Your task to perform on an android device: turn on airplane mode Image 0: 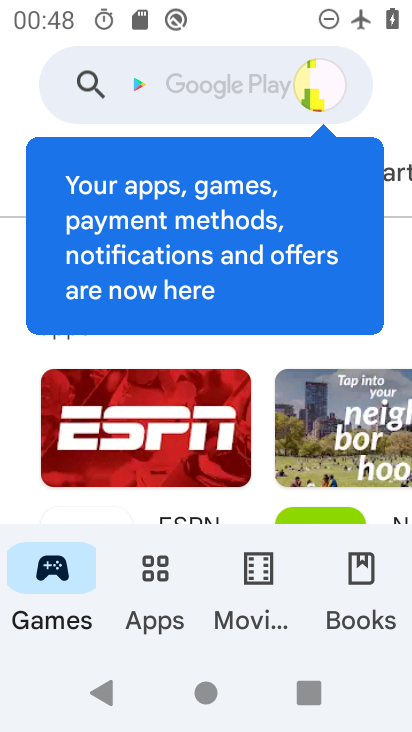
Step 0: press home button
Your task to perform on an android device: turn on airplane mode Image 1: 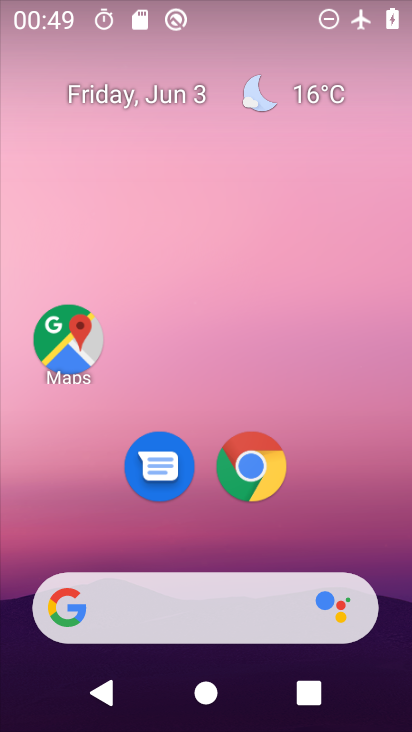
Step 1: drag from (193, 561) to (208, 216)
Your task to perform on an android device: turn on airplane mode Image 2: 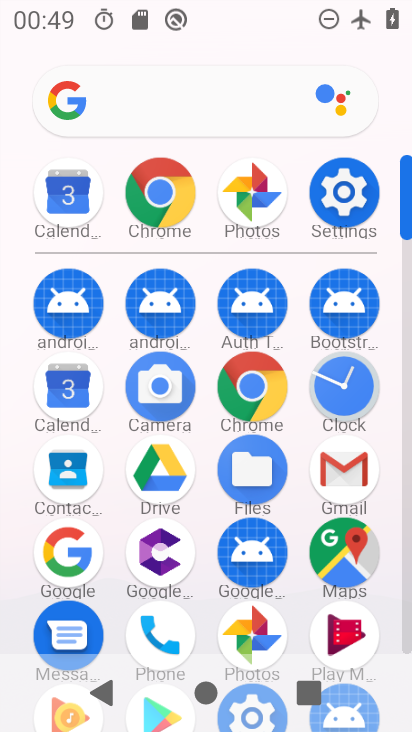
Step 2: click (336, 175)
Your task to perform on an android device: turn on airplane mode Image 3: 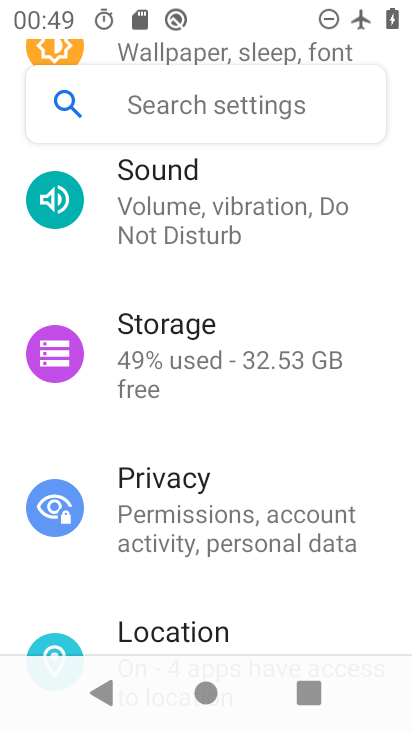
Step 3: drag from (204, 209) to (223, 545)
Your task to perform on an android device: turn on airplane mode Image 4: 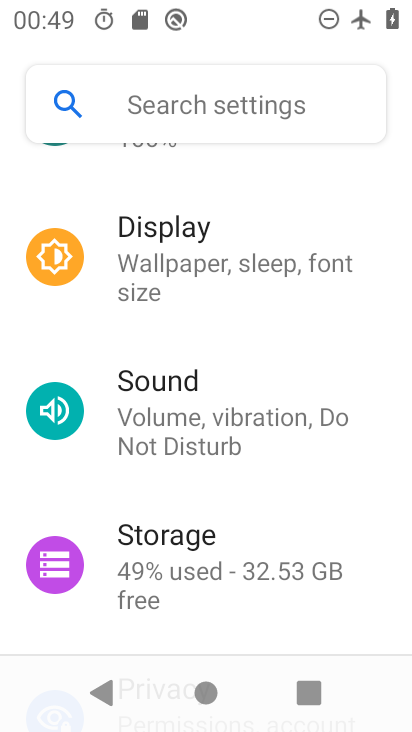
Step 4: drag from (220, 573) to (205, 238)
Your task to perform on an android device: turn on airplane mode Image 5: 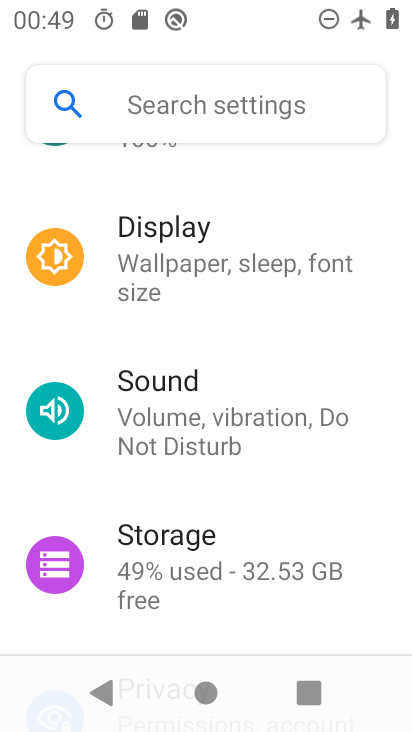
Step 5: drag from (219, 235) to (239, 582)
Your task to perform on an android device: turn on airplane mode Image 6: 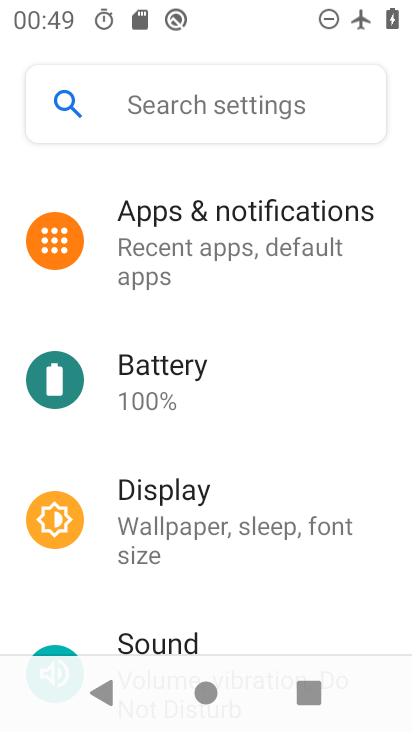
Step 6: drag from (200, 258) to (198, 487)
Your task to perform on an android device: turn on airplane mode Image 7: 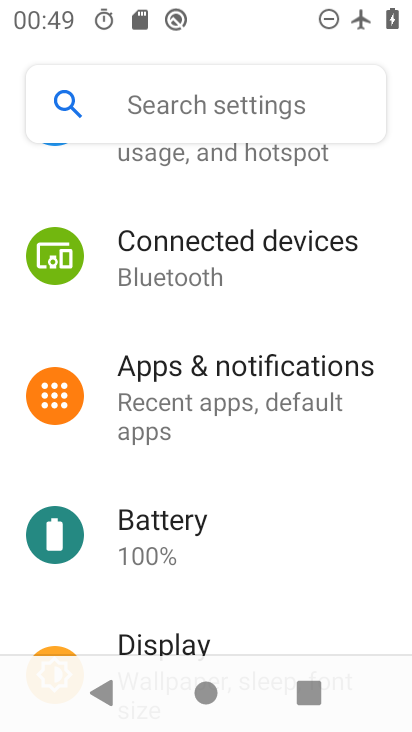
Step 7: drag from (219, 256) to (222, 590)
Your task to perform on an android device: turn on airplane mode Image 8: 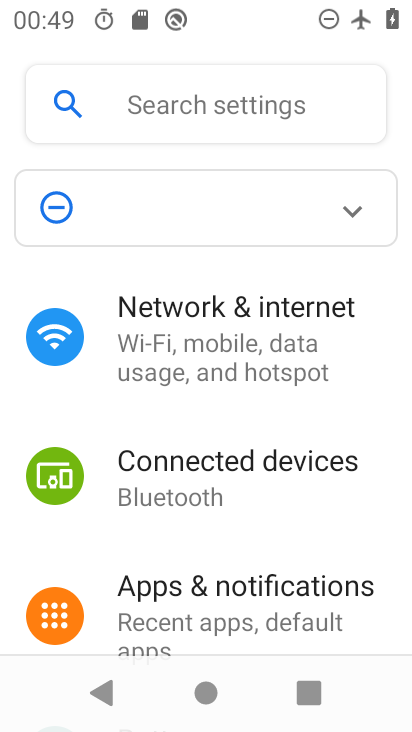
Step 8: click (198, 358)
Your task to perform on an android device: turn on airplane mode Image 9: 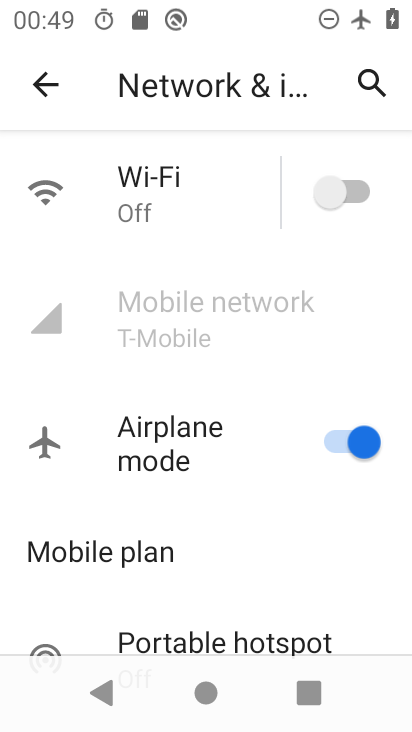
Step 9: task complete